Your task to perform on an android device: Go to internet settings Image 0: 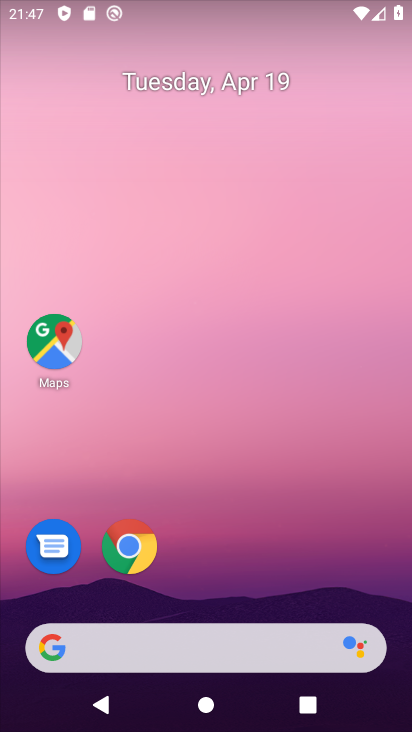
Step 0: click (140, 544)
Your task to perform on an android device: Go to internet settings Image 1: 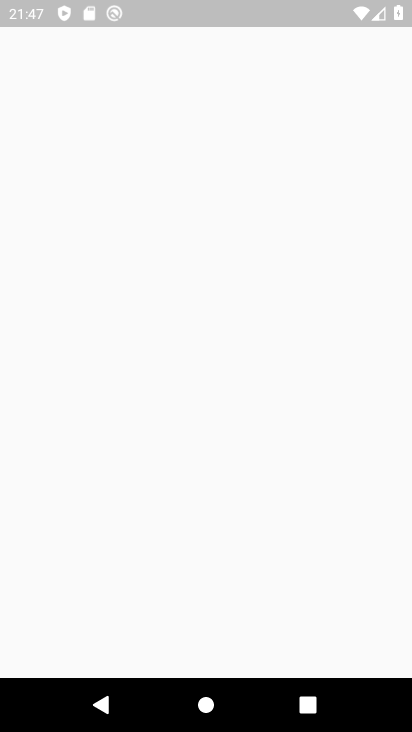
Step 1: drag from (239, 581) to (221, 254)
Your task to perform on an android device: Go to internet settings Image 2: 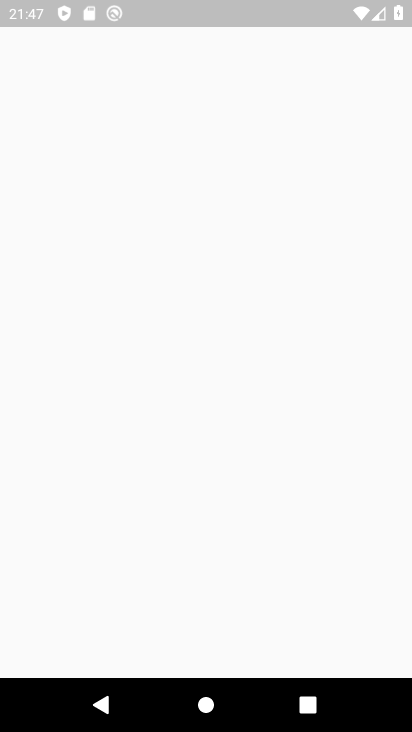
Step 2: press home button
Your task to perform on an android device: Go to internet settings Image 3: 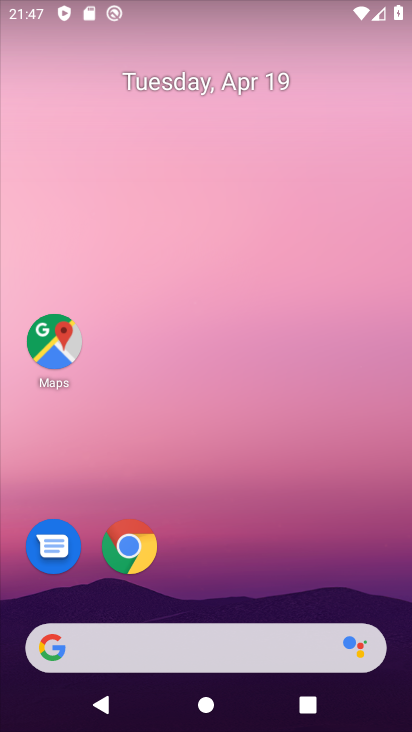
Step 3: drag from (193, 602) to (181, 57)
Your task to perform on an android device: Go to internet settings Image 4: 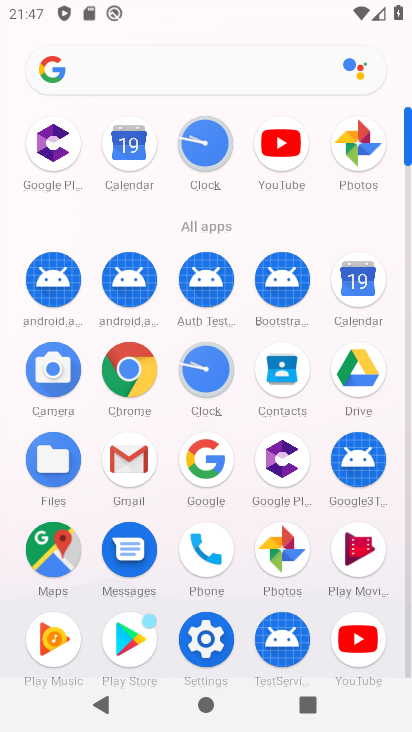
Step 4: click (203, 634)
Your task to perform on an android device: Go to internet settings Image 5: 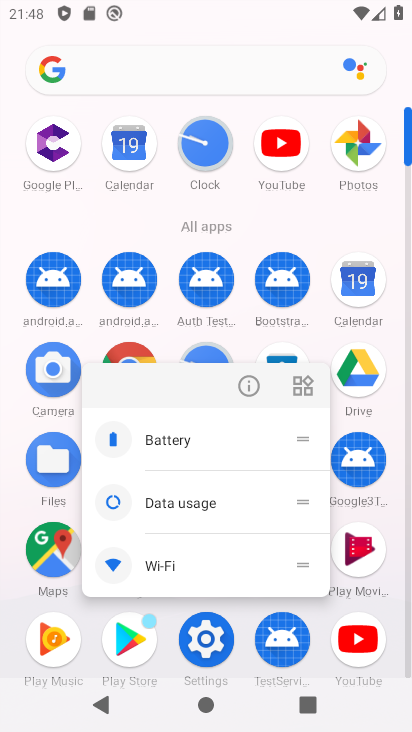
Step 5: click (210, 633)
Your task to perform on an android device: Go to internet settings Image 6: 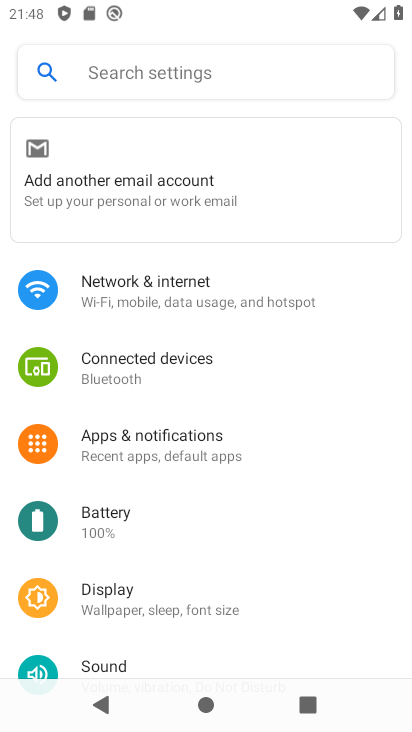
Step 6: click (215, 294)
Your task to perform on an android device: Go to internet settings Image 7: 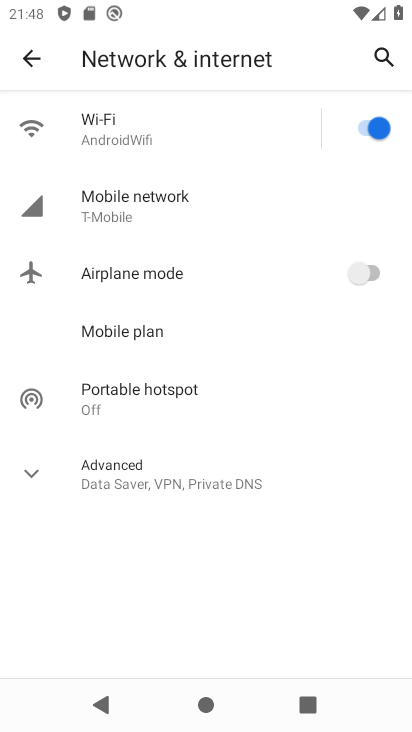
Step 7: click (198, 207)
Your task to perform on an android device: Go to internet settings Image 8: 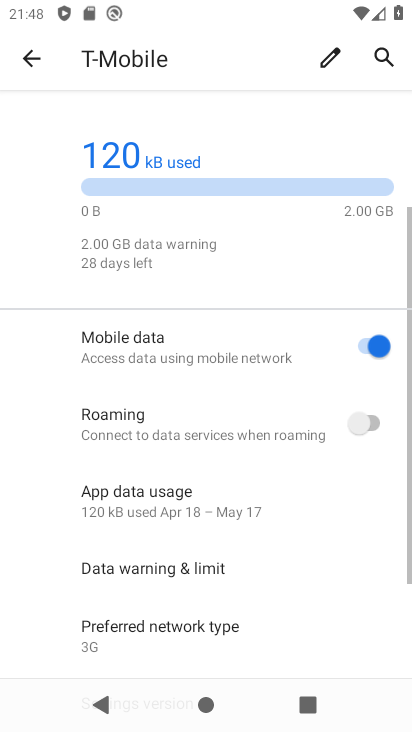
Step 8: task complete